Your task to perform on an android device: open sync settings in chrome Image 0: 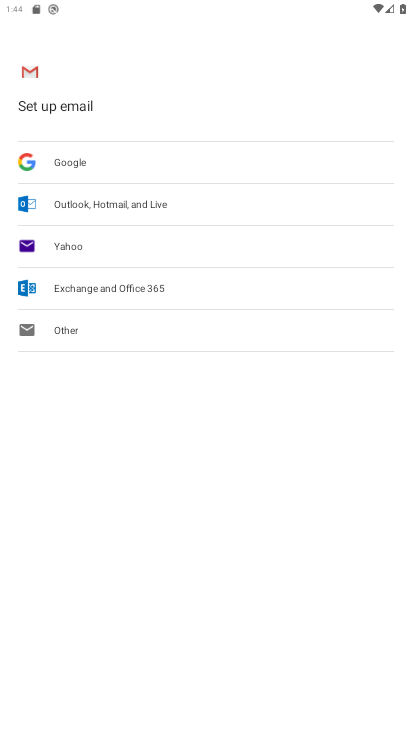
Step 0: press home button
Your task to perform on an android device: open sync settings in chrome Image 1: 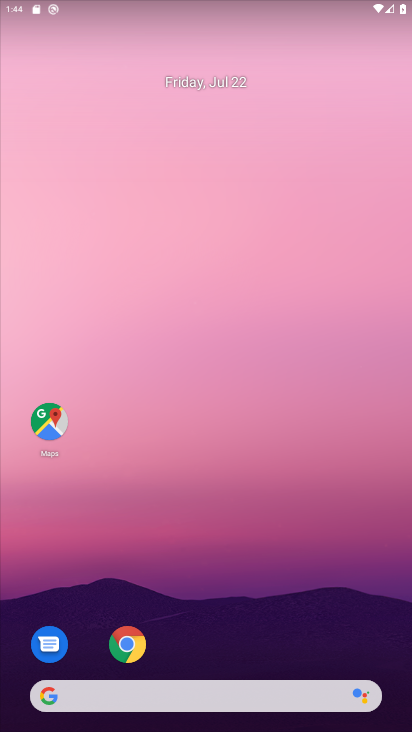
Step 1: click (130, 647)
Your task to perform on an android device: open sync settings in chrome Image 2: 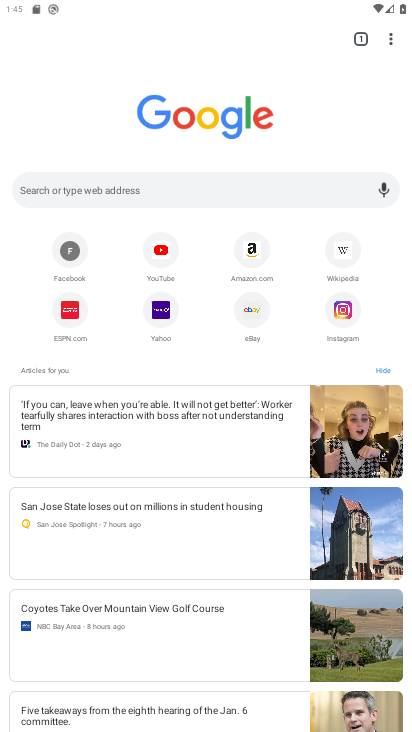
Step 2: click (385, 42)
Your task to perform on an android device: open sync settings in chrome Image 3: 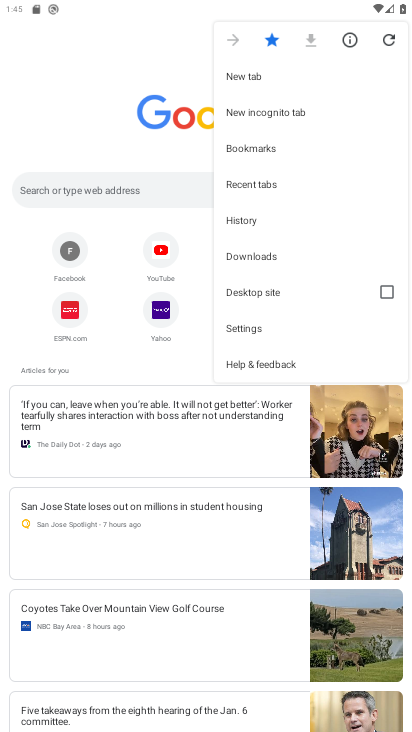
Step 3: click (238, 323)
Your task to perform on an android device: open sync settings in chrome Image 4: 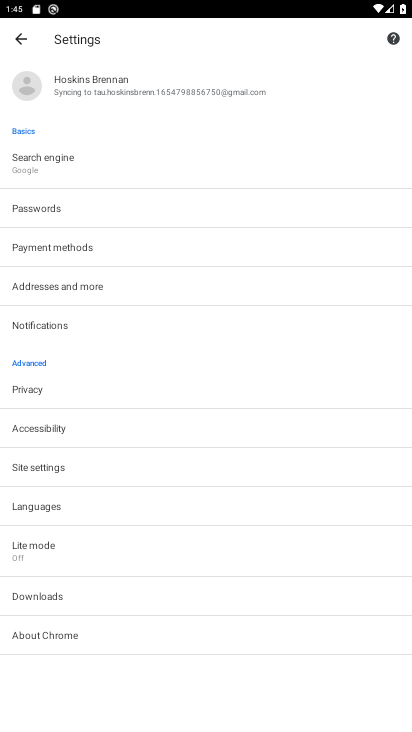
Step 4: click (136, 89)
Your task to perform on an android device: open sync settings in chrome Image 5: 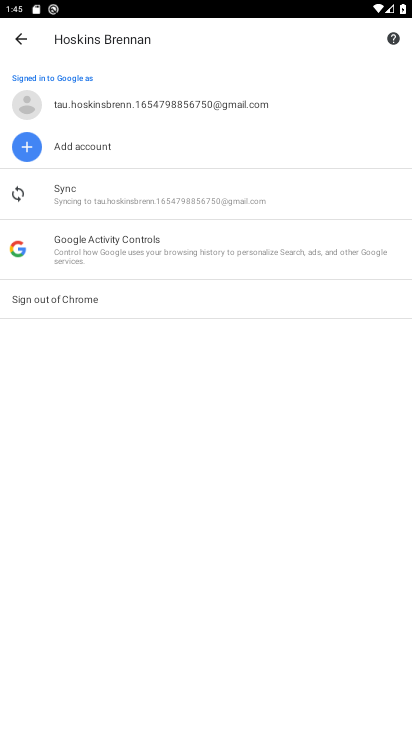
Step 5: click (65, 191)
Your task to perform on an android device: open sync settings in chrome Image 6: 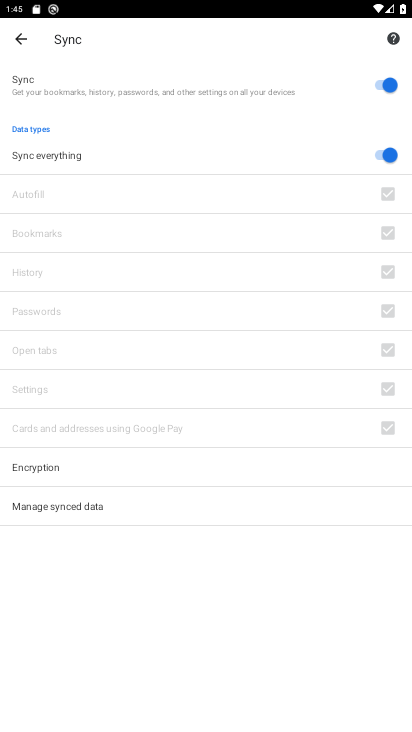
Step 6: task complete